Your task to perform on an android device: toggle improve location accuracy Image 0: 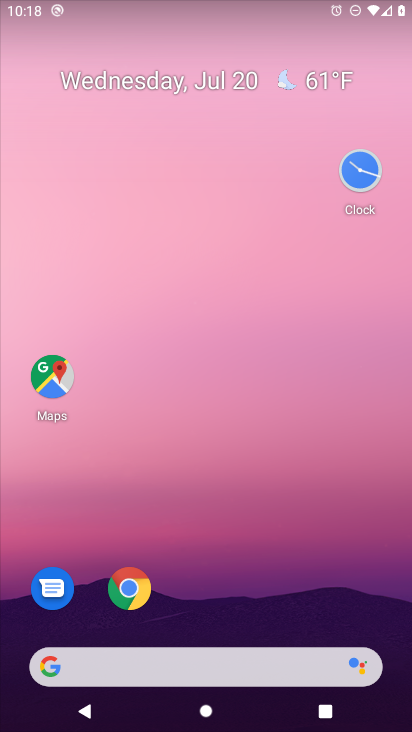
Step 0: drag from (65, 658) to (224, 8)
Your task to perform on an android device: toggle improve location accuracy Image 1: 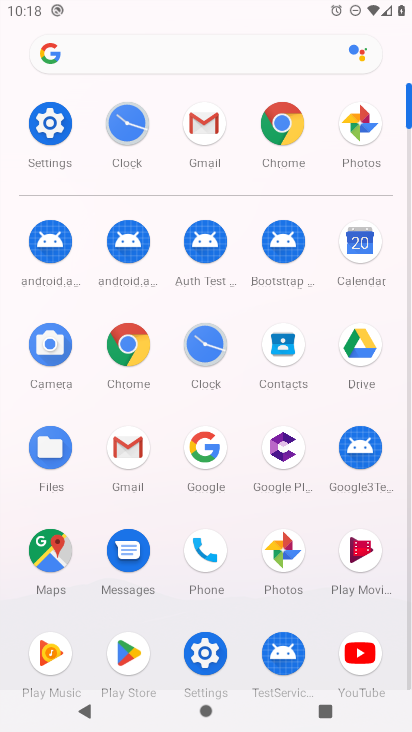
Step 1: click (221, 654)
Your task to perform on an android device: toggle improve location accuracy Image 2: 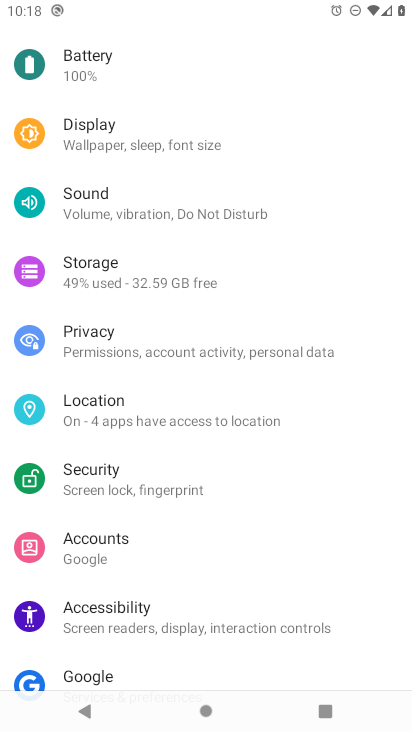
Step 2: click (96, 400)
Your task to perform on an android device: toggle improve location accuracy Image 3: 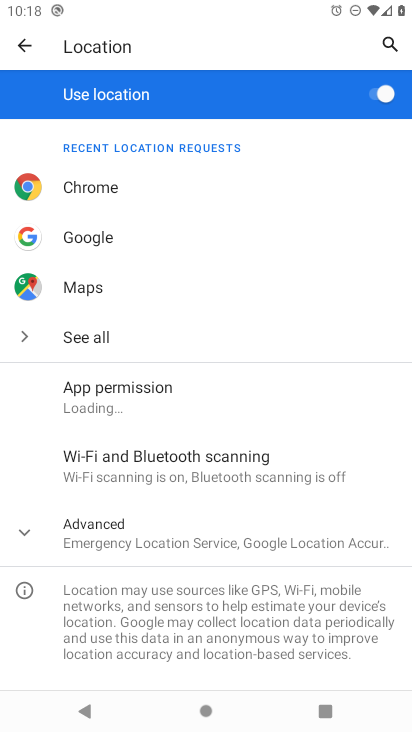
Step 3: click (94, 523)
Your task to perform on an android device: toggle improve location accuracy Image 4: 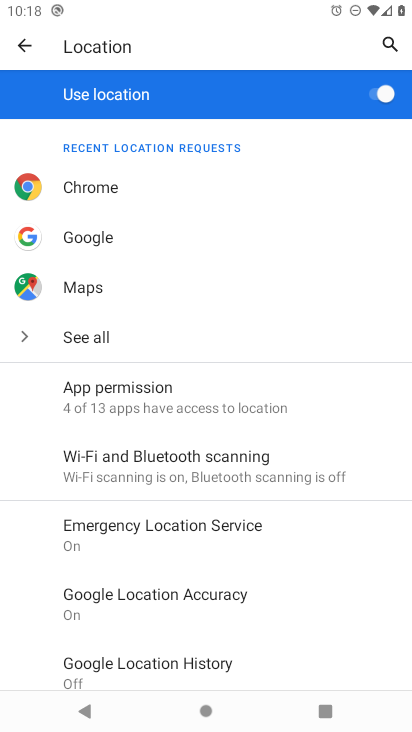
Step 4: task complete